Your task to perform on an android device: What's the weather today? Image 0: 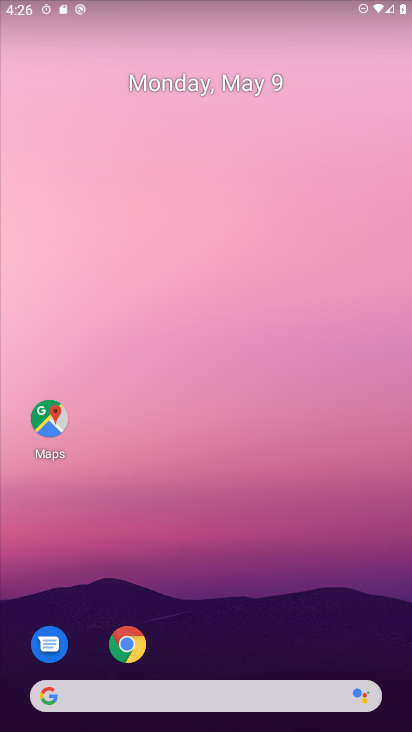
Step 0: drag from (179, 612) to (152, 165)
Your task to perform on an android device: What's the weather today? Image 1: 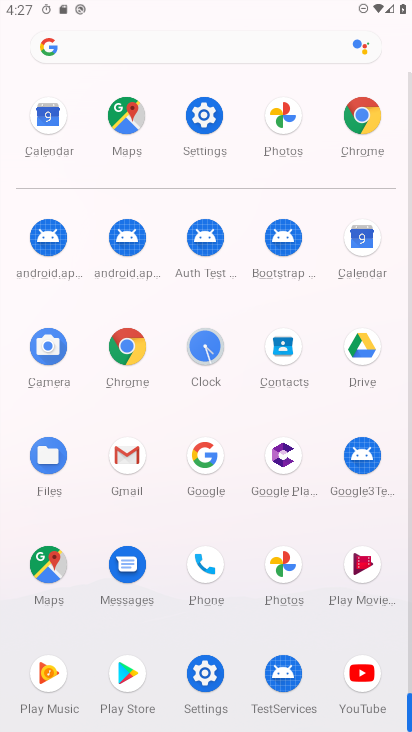
Step 1: drag from (329, 641) to (298, 224)
Your task to perform on an android device: What's the weather today? Image 2: 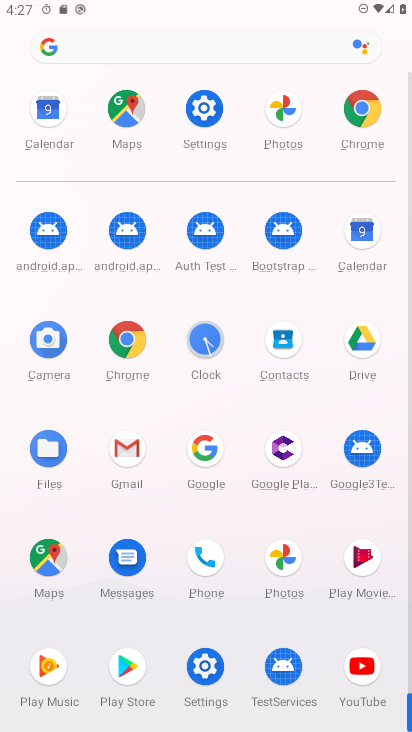
Step 2: drag from (245, 501) to (234, 323)
Your task to perform on an android device: What's the weather today? Image 3: 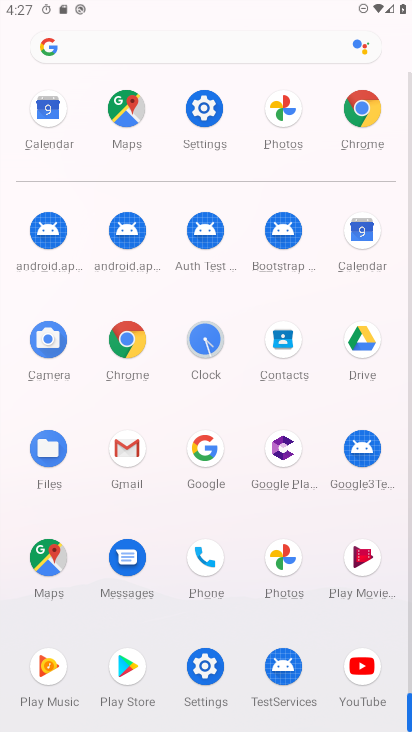
Step 3: click (205, 469)
Your task to perform on an android device: What's the weather today? Image 4: 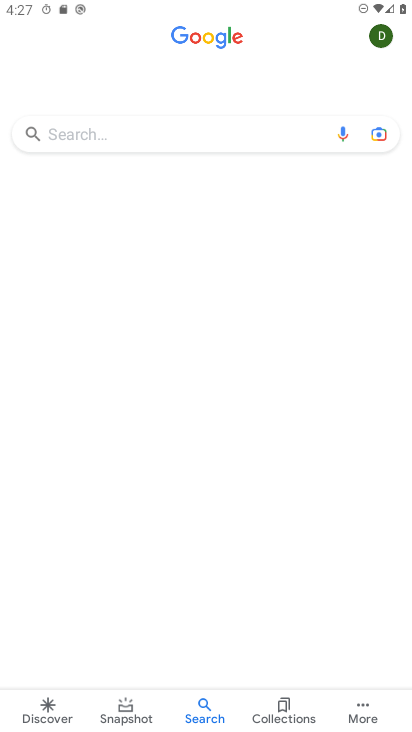
Step 4: press home button
Your task to perform on an android device: What's the weather today? Image 5: 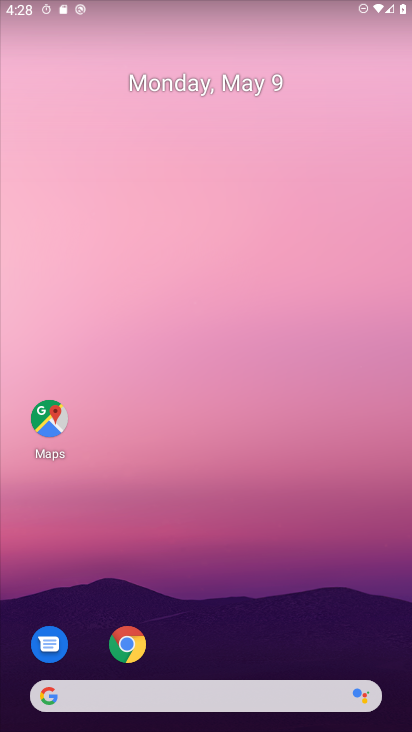
Step 5: click (181, 696)
Your task to perform on an android device: What's the weather today? Image 6: 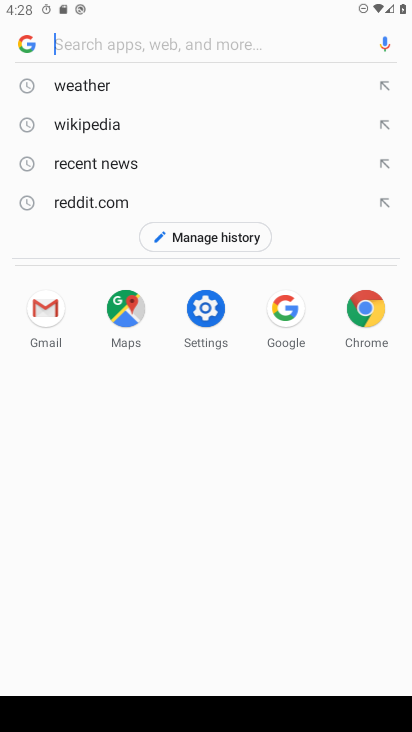
Step 6: click (119, 94)
Your task to perform on an android device: What's the weather today? Image 7: 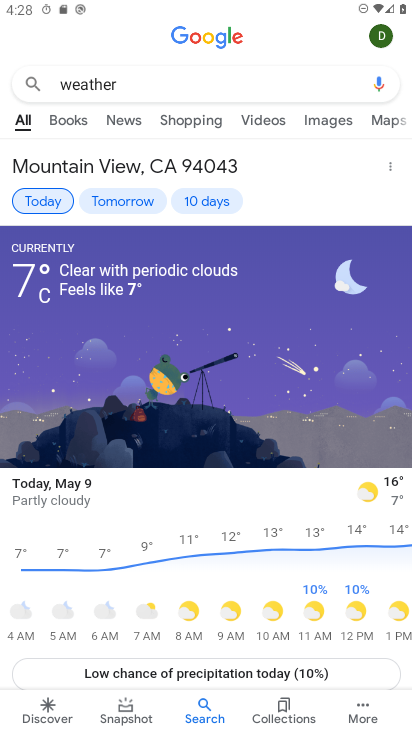
Step 7: task complete